Your task to perform on an android device: turn off wifi Image 0: 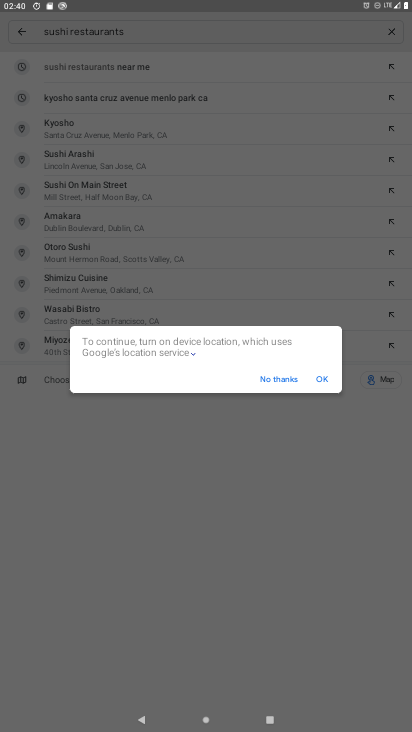
Step 0: press home button
Your task to perform on an android device: turn off wifi Image 1: 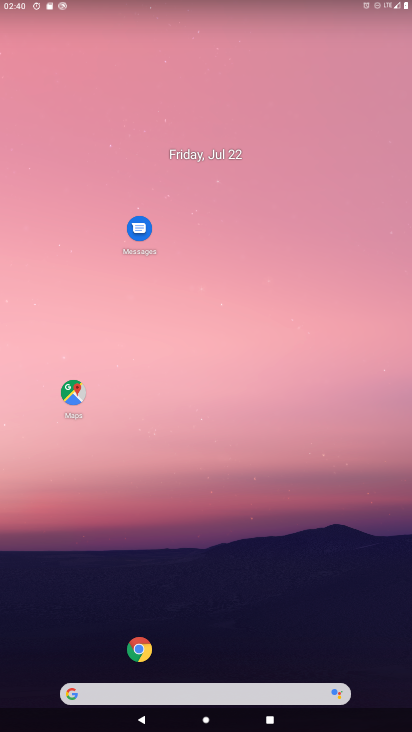
Step 1: drag from (21, 672) to (228, 40)
Your task to perform on an android device: turn off wifi Image 2: 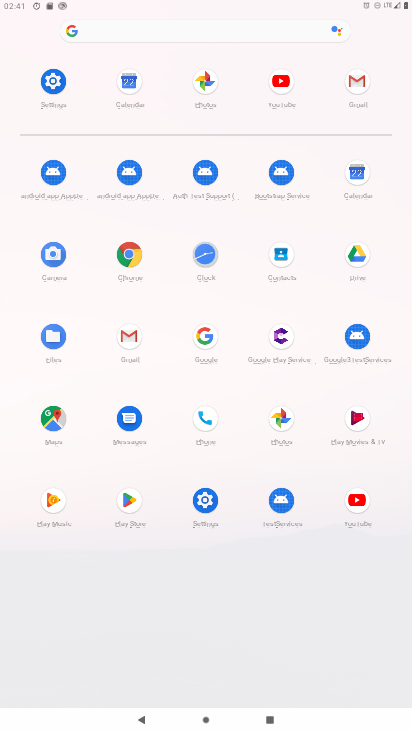
Step 2: click (201, 506)
Your task to perform on an android device: turn off wifi Image 3: 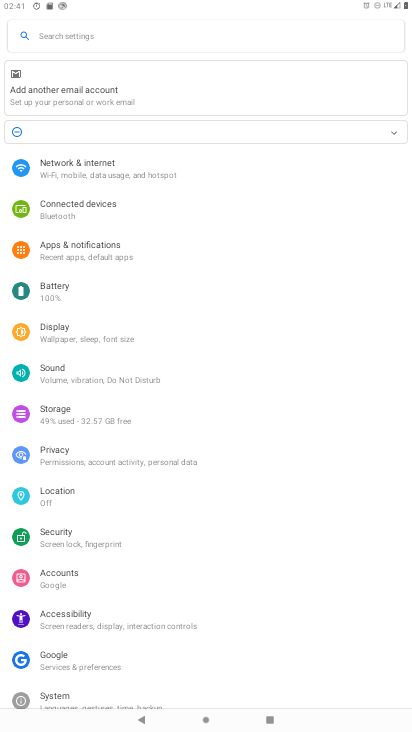
Step 3: click (100, 172)
Your task to perform on an android device: turn off wifi Image 4: 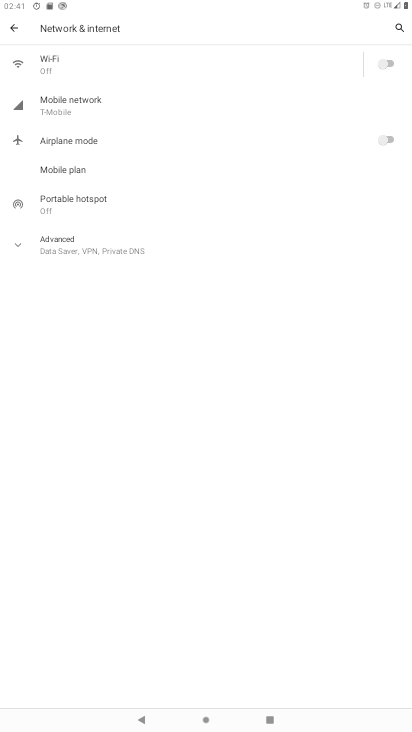
Step 4: task complete